Your task to perform on an android device: clear all cookies in the chrome app Image 0: 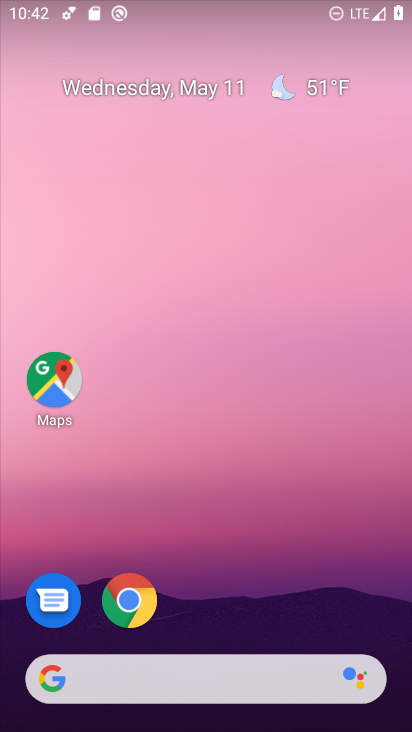
Step 0: click (143, 608)
Your task to perform on an android device: clear all cookies in the chrome app Image 1: 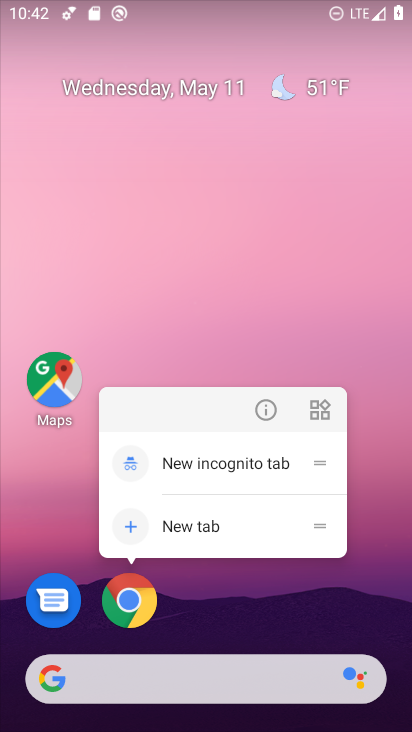
Step 1: click (125, 613)
Your task to perform on an android device: clear all cookies in the chrome app Image 2: 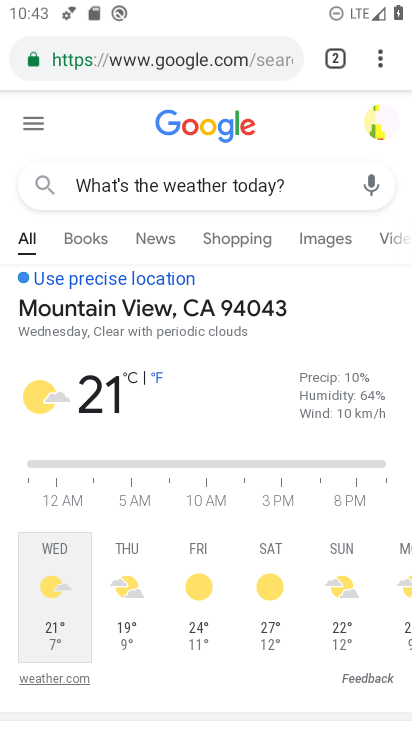
Step 2: drag from (385, 55) to (239, 637)
Your task to perform on an android device: clear all cookies in the chrome app Image 3: 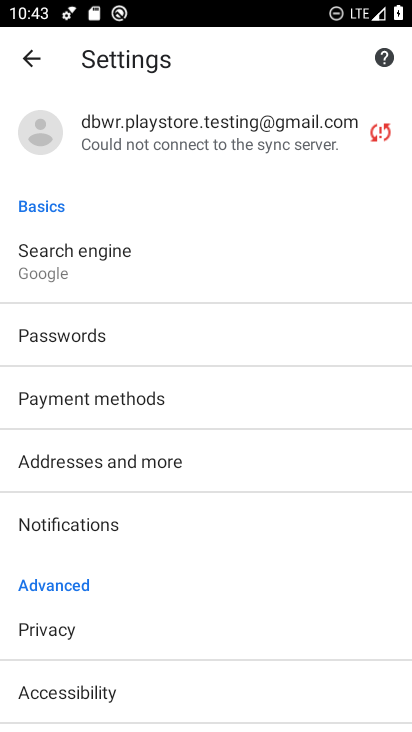
Step 3: click (22, 629)
Your task to perform on an android device: clear all cookies in the chrome app Image 4: 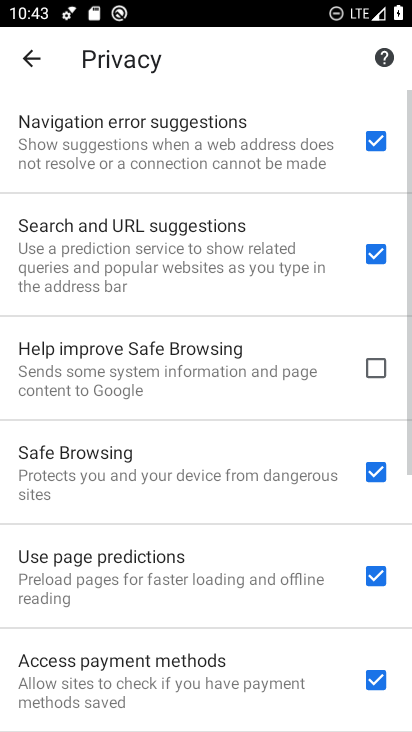
Step 4: drag from (295, 663) to (339, 81)
Your task to perform on an android device: clear all cookies in the chrome app Image 5: 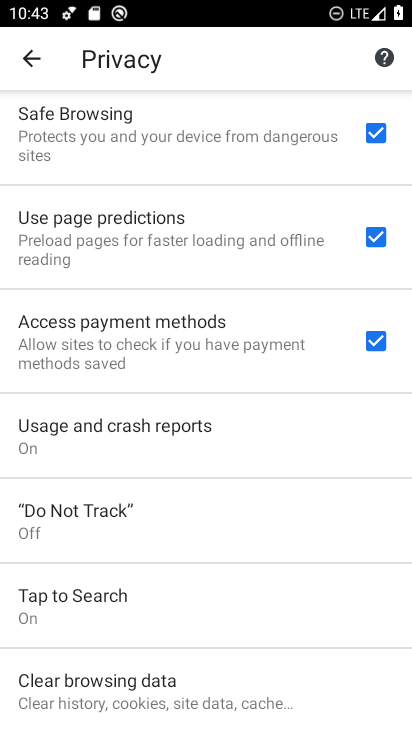
Step 5: click (76, 682)
Your task to perform on an android device: clear all cookies in the chrome app Image 6: 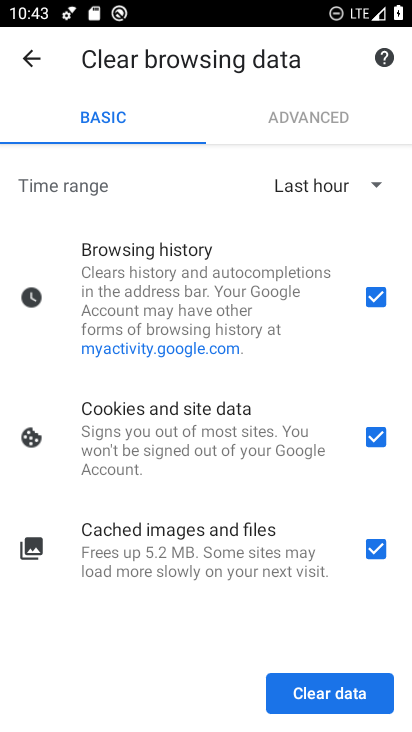
Step 6: click (308, 689)
Your task to perform on an android device: clear all cookies in the chrome app Image 7: 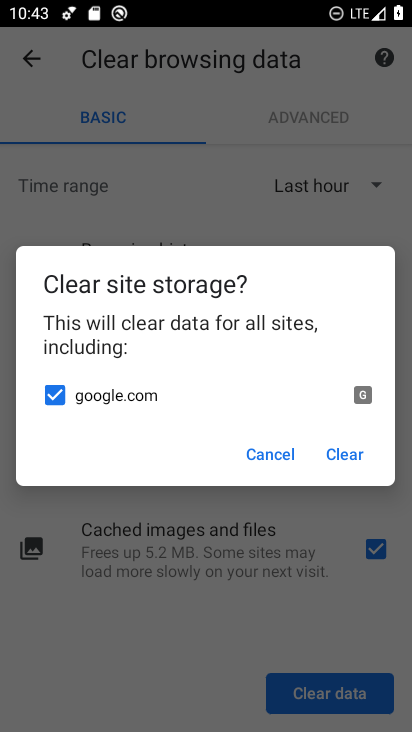
Step 7: click (342, 442)
Your task to perform on an android device: clear all cookies in the chrome app Image 8: 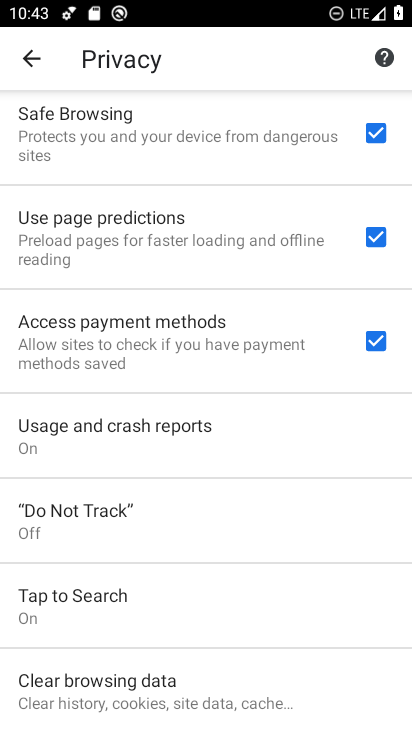
Step 8: task complete